Your task to perform on an android device: What's on my calendar today? Image 0: 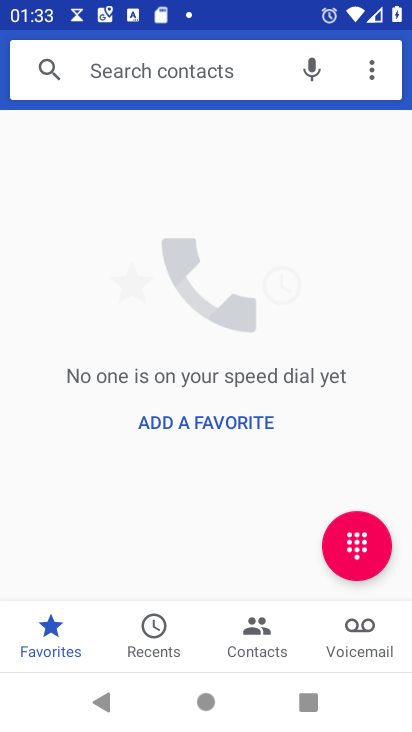
Step 0: press home button
Your task to perform on an android device: What's on my calendar today? Image 1: 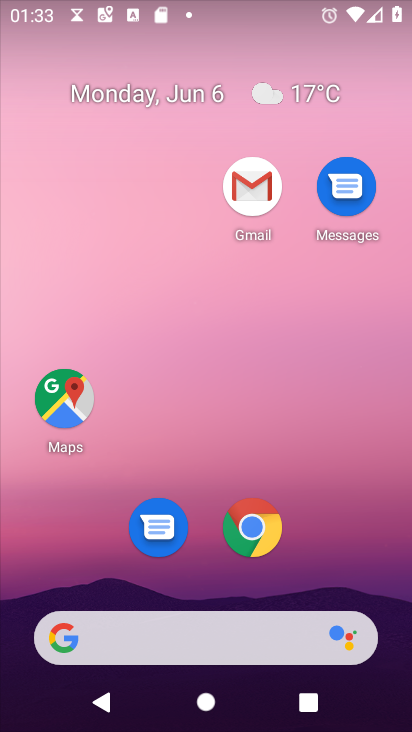
Step 1: click (144, 97)
Your task to perform on an android device: What's on my calendar today? Image 2: 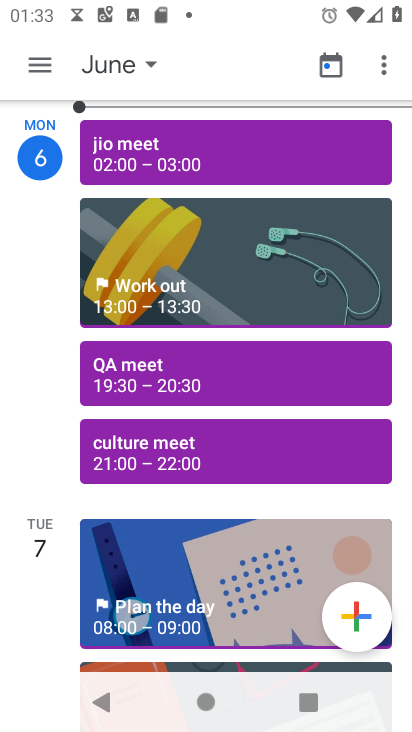
Step 2: task complete